Your task to perform on an android device: change text size in settings app Image 0: 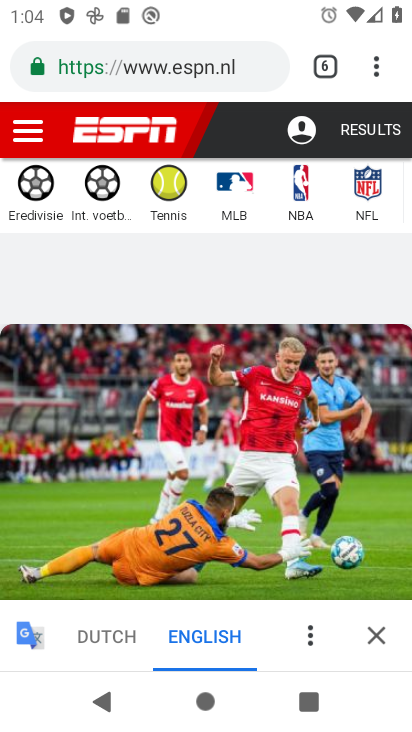
Step 0: press home button
Your task to perform on an android device: change text size in settings app Image 1: 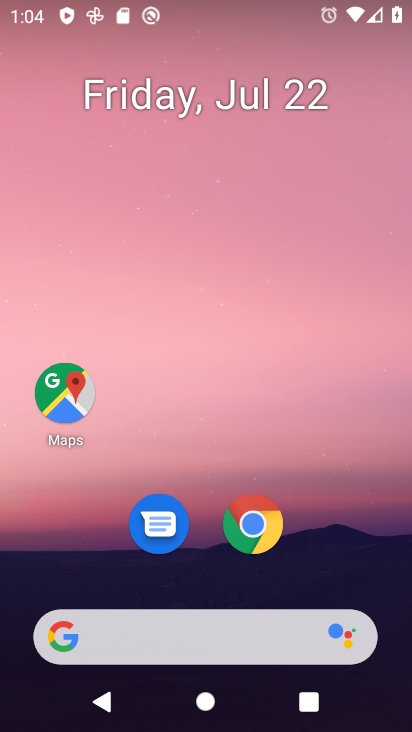
Step 1: drag from (207, 633) to (311, 205)
Your task to perform on an android device: change text size in settings app Image 2: 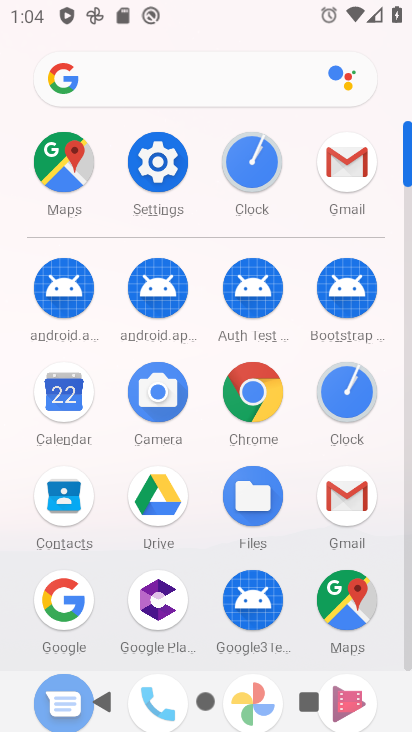
Step 2: click (170, 164)
Your task to perform on an android device: change text size in settings app Image 3: 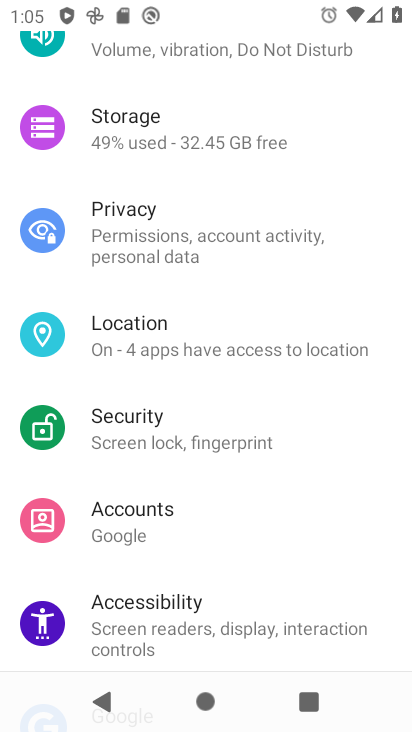
Step 3: drag from (302, 120) to (273, 578)
Your task to perform on an android device: change text size in settings app Image 4: 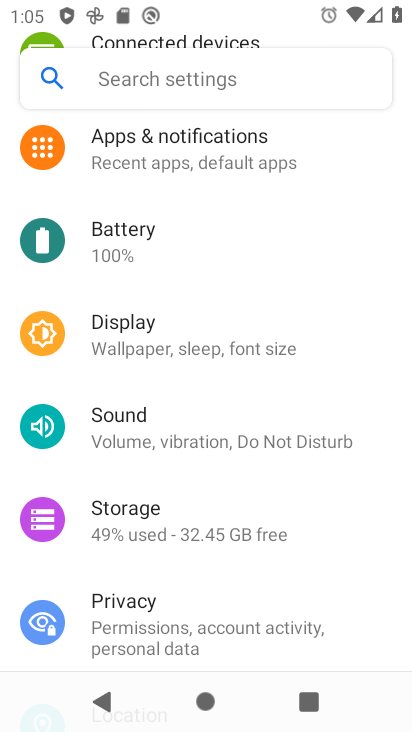
Step 4: click (196, 351)
Your task to perform on an android device: change text size in settings app Image 5: 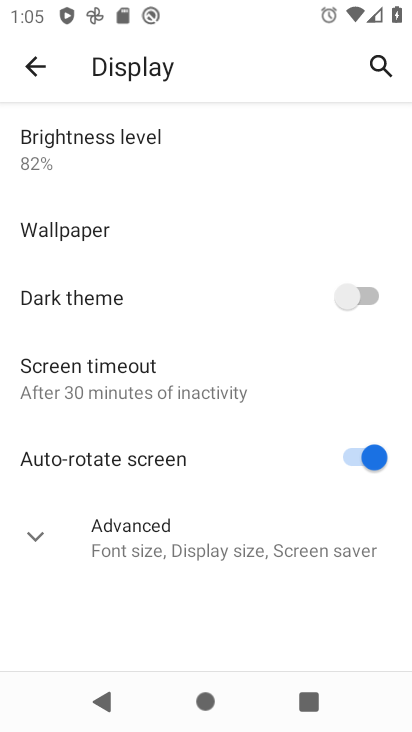
Step 5: click (154, 547)
Your task to perform on an android device: change text size in settings app Image 6: 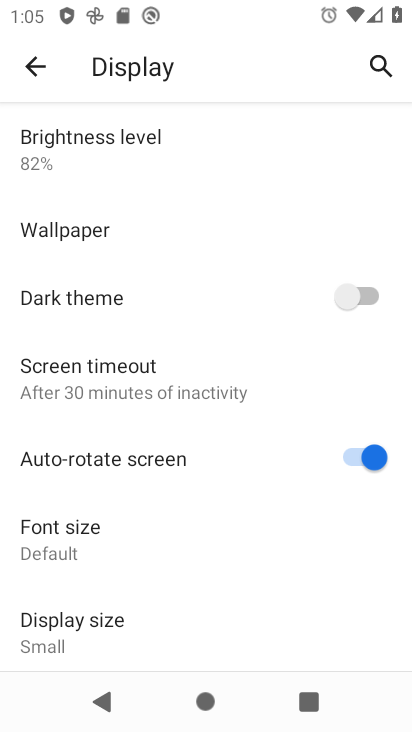
Step 6: click (83, 531)
Your task to perform on an android device: change text size in settings app Image 7: 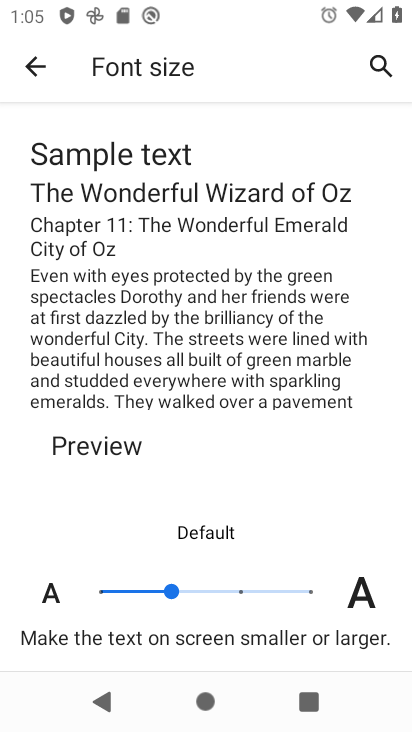
Step 7: click (98, 592)
Your task to perform on an android device: change text size in settings app Image 8: 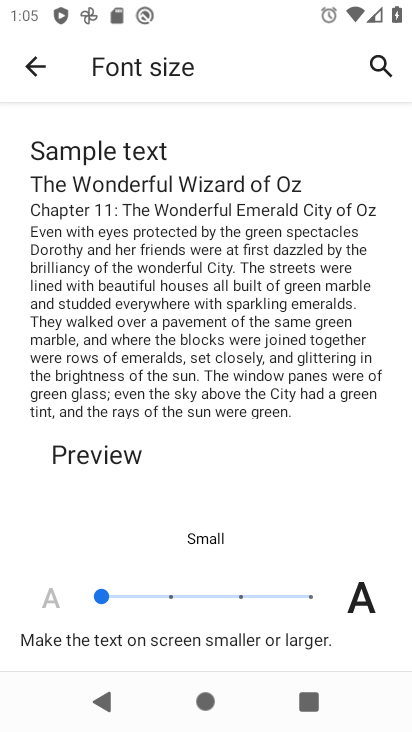
Step 8: task complete